Your task to perform on an android device: Show me recent news Image 0: 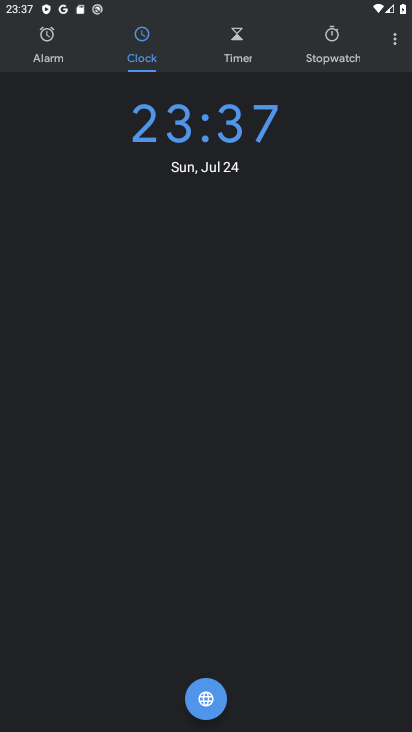
Step 0: press home button
Your task to perform on an android device: Show me recent news Image 1: 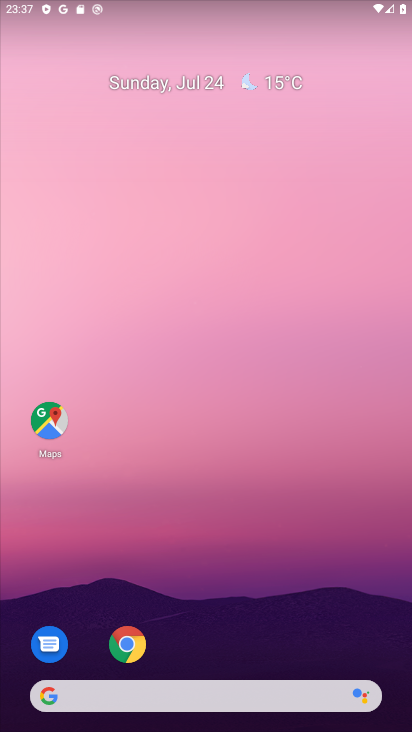
Step 1: task complete